Your task to perform on an android device: uninstall "PlayWell" Image 0: 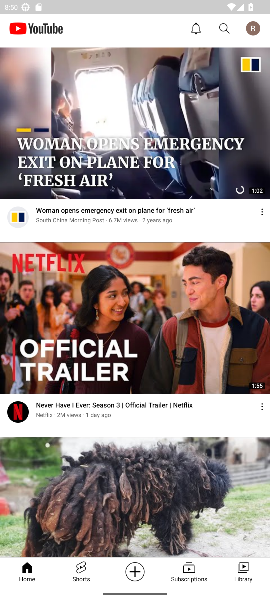
Step 0: press home button
Your task to perform on an android device: uninstall "PlayWell" Image 1: 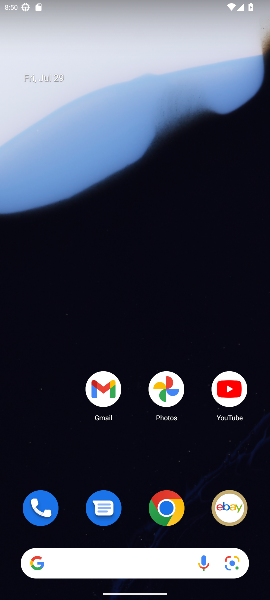
Step 1: drag from (152, 552) to (172, 59)
Your task to perform on an android device: uninstall "PlayWell" Image 2: 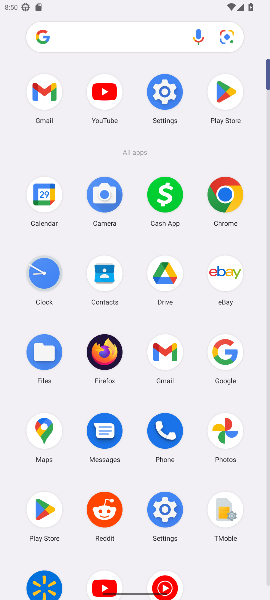
Step 2: click (229, 87)
Your task to perform on an android device: uninstall "PlayWell" Image 3: 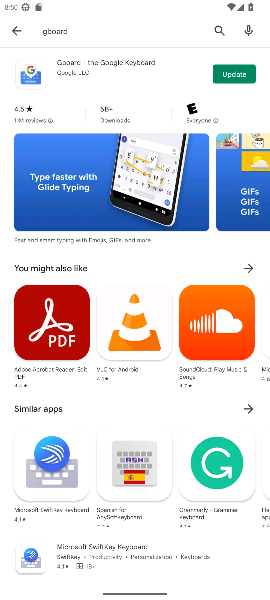
Step 3: click (221, 24)
Your task to perform on an android device: uninstall "PlayWell" Image 4: 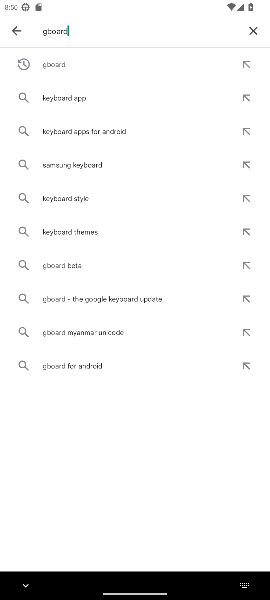
Step 4: click (250, 30)
Your task to perform on an android device: uninstall "PlayWell" Image 5: 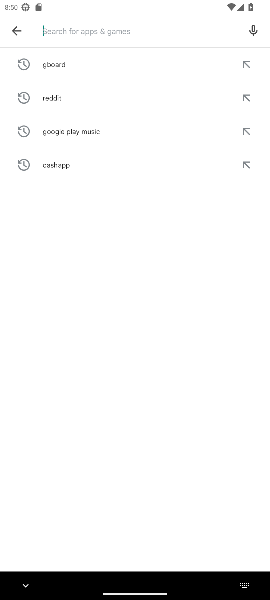
Step 5: type "playwell"
Your task to perform on an android device: uninstall "PlayWell" Image 6: 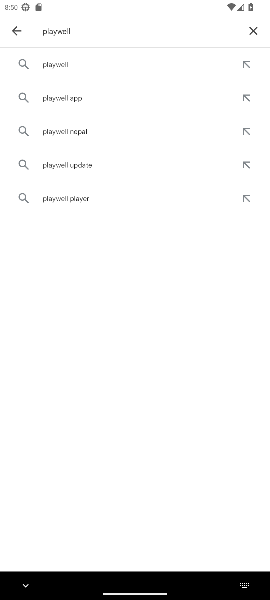
Step 6: click (57, 60)
Your task to perform on an android device: uninstall "PlayWell" Image 7: 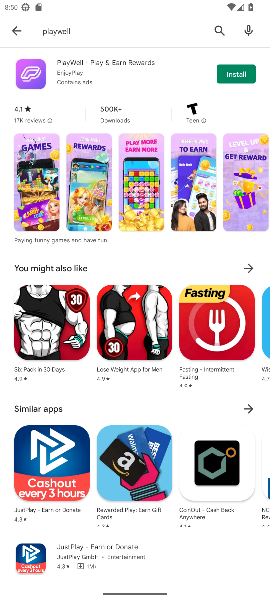
Step 7: task complete